Your task to perform on an android device: toggle airplane mode Image 0: 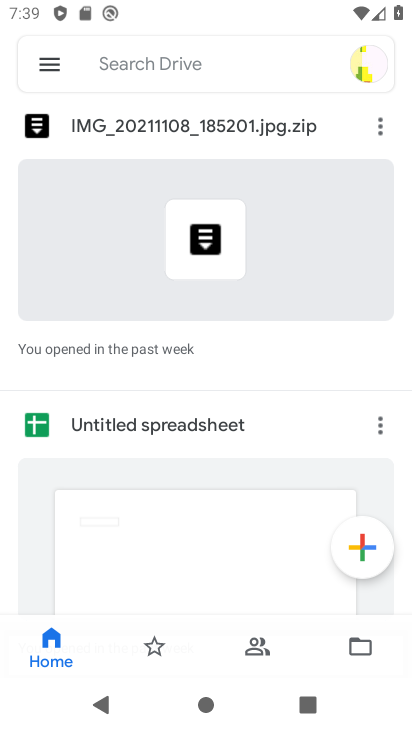
Step 0: press home button
Your task to perform on an android device: toggle airplane mode Image 1: 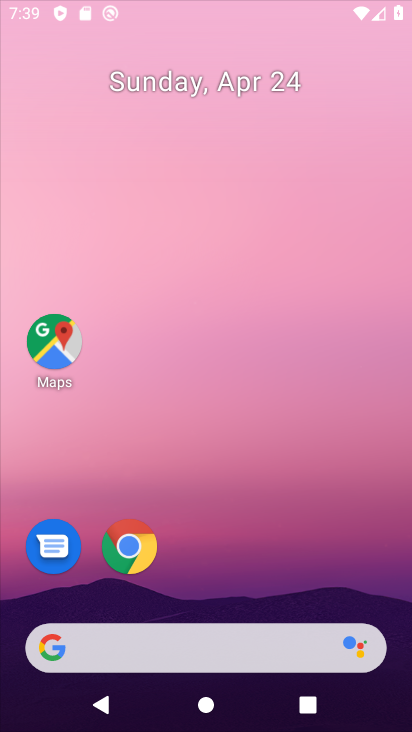
Step 1: press home button
Your task to perform on an android device: toggle airplane mode Image 2: 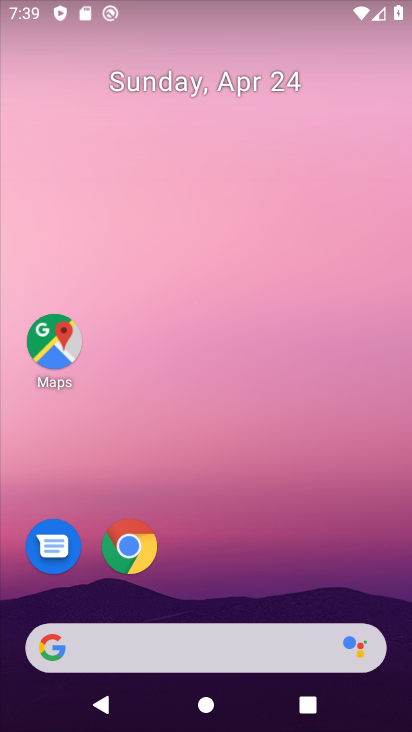
Step 2: drag from (242, 584) to (324, 36)
Your task to perform on an android device: toggle airplane mode Image 3: 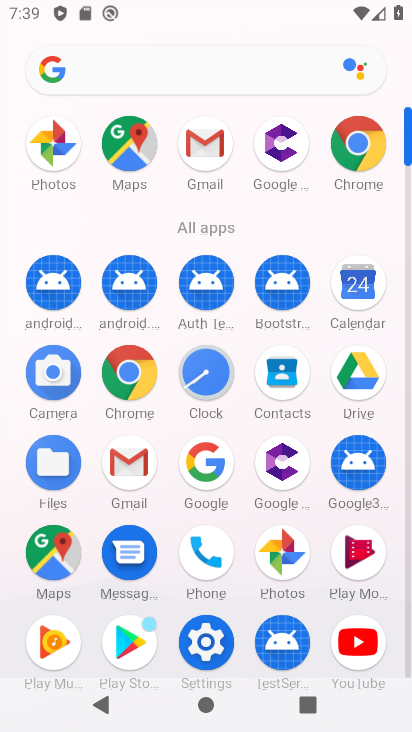
Step 3: click (206, 650)
Your task to perform on an android device: toggle airplane mode Image 4: 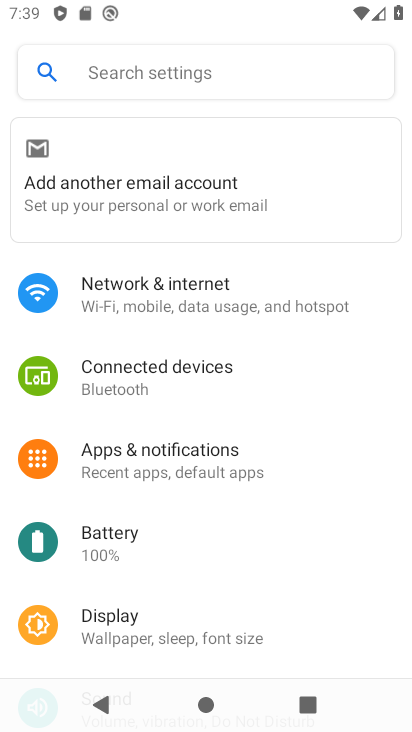
Step 4: click (216, 312)
Your task to perform on an android device: toggle airplane mode Image 5: 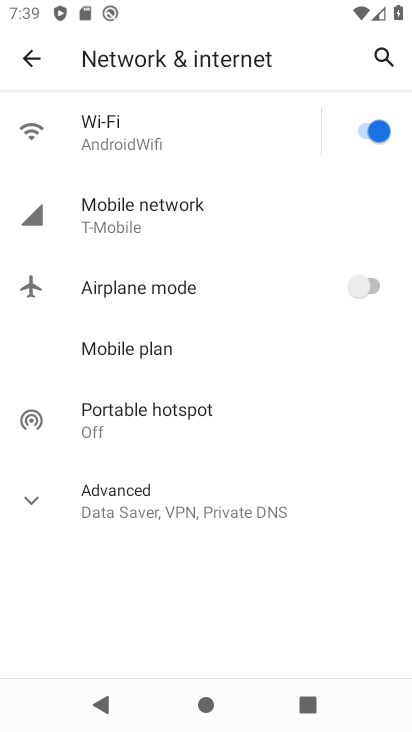
Step 5: click (386, 282)
Your task to perform on an android device: toggle airplane mode Image 6: 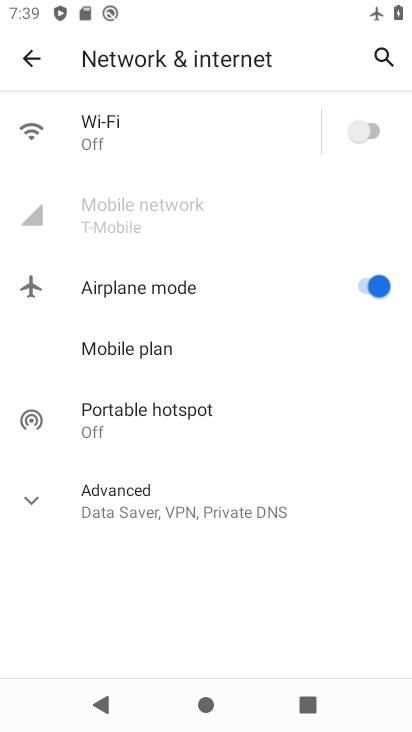
Step 6: click (386, 282)
Your task to perform on an android device: toggle airplane mode Image 7: 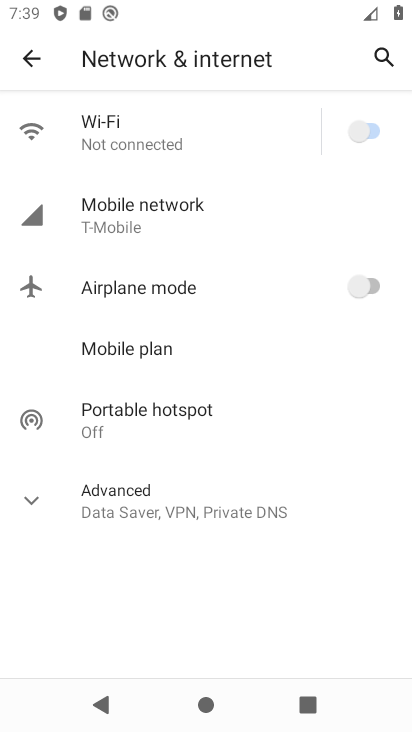
Step 7: task complete